Your task to perform on an android device: turn on the 24-hour format for clock Image 0: 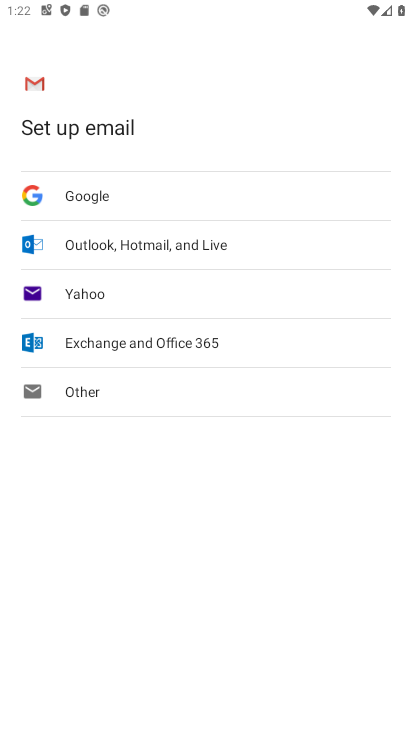
Step 0: press home button
Your task to perform on an android device: turn on the 24-hour format for clock Image 1: 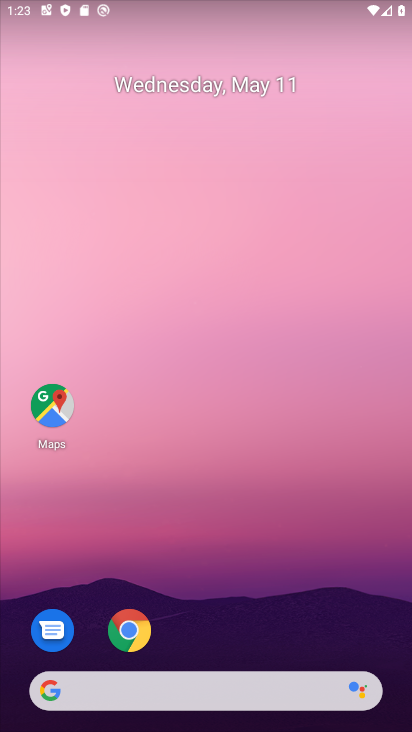
Step 1: drag from (230, 433) to (233, 58)
Your task to perform on an android device: turn on the 24-hour format for clock Image 2: 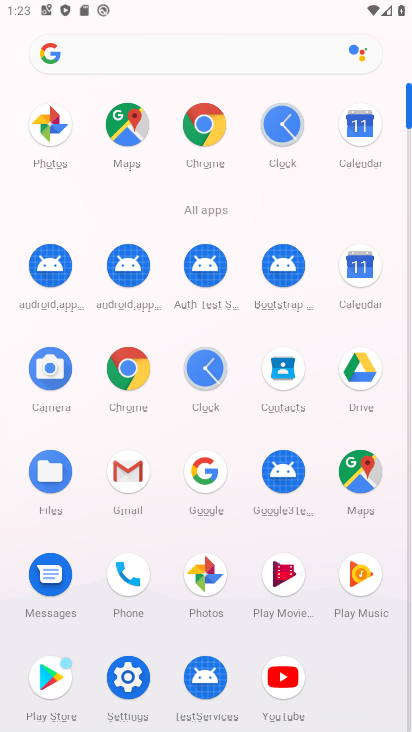
Step 2: click (160, 371)
Your task to perform on an android device: turn on the 24-hour format for clock Image 3: 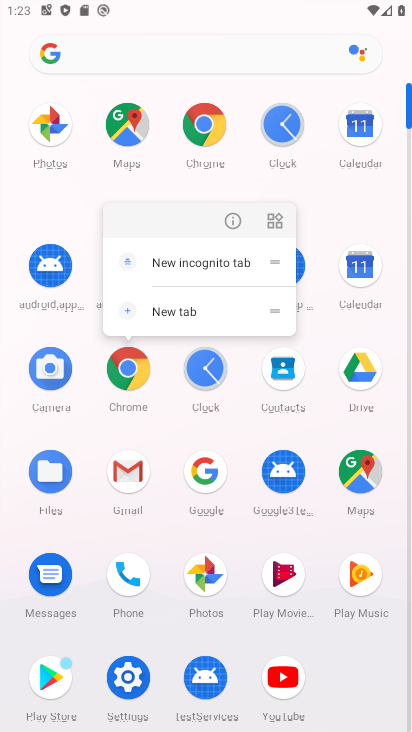
Step 3: click (202, 377)
Your task to perform on an android device: turn on the 24-hour format for clock Image 4: 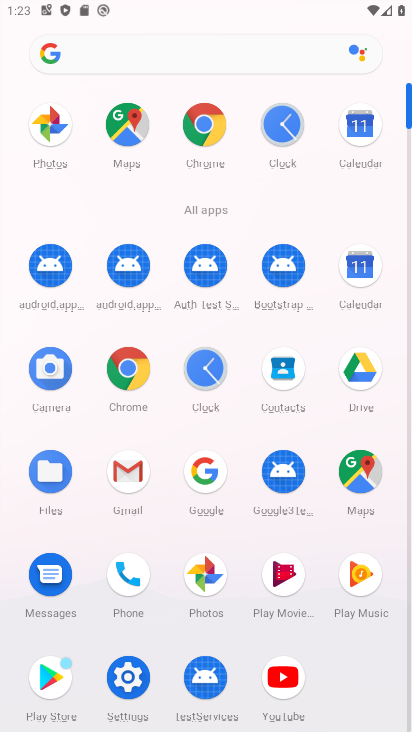
Step 4: click (279, 133)
Your task to perform on an android device: turn on the 24-hour format for clock Image 5: 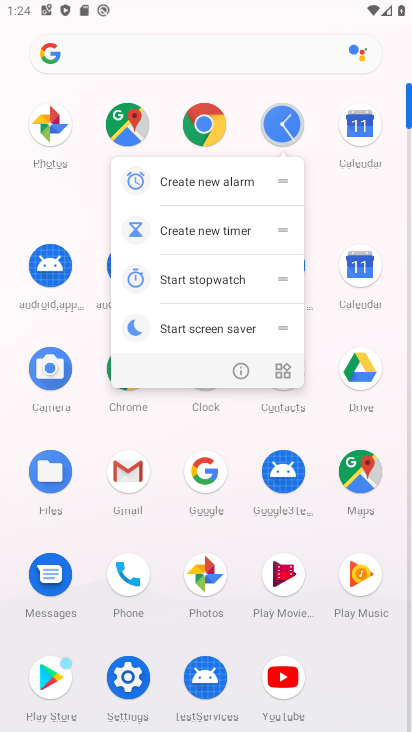
Step 5: click (274, 135)
Your task to perform on an android device: turn on the 24-hour format for clock Image 6: 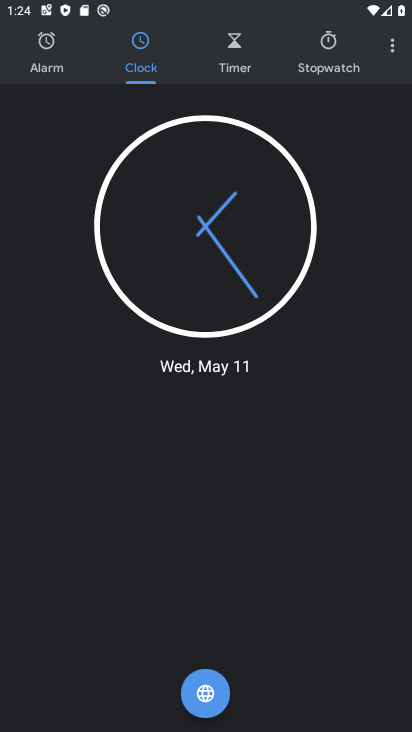
Step 6: click (389, 52)
Your task to perform on an android device: turn on the 24-hour format for clock Image 7: 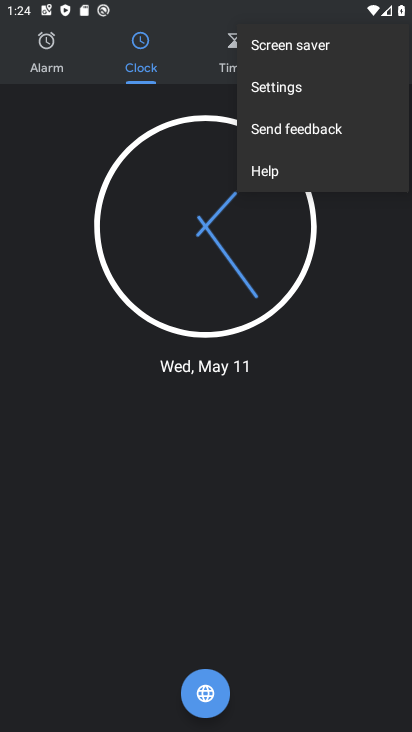
Step 7: click (291, 96)
Your task to perform on an android device: turn on the 24-hour format for clock Image 8: 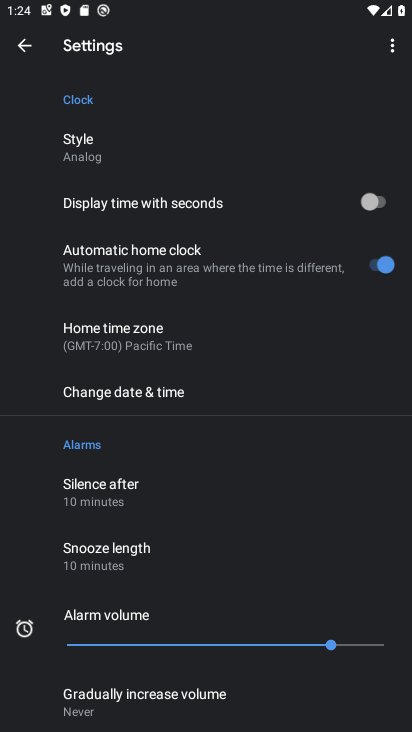
Step 8: click (123, 395)
Your task to perform on an android device: turn on the 24-hour format for clock Image 9: 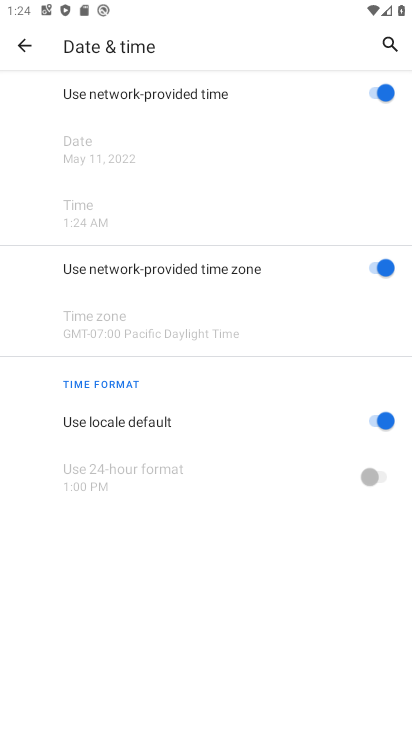
Step 9: click (371, 485)
Your task to perform on an android device: turn on the 24-hour format for clock Image 10: 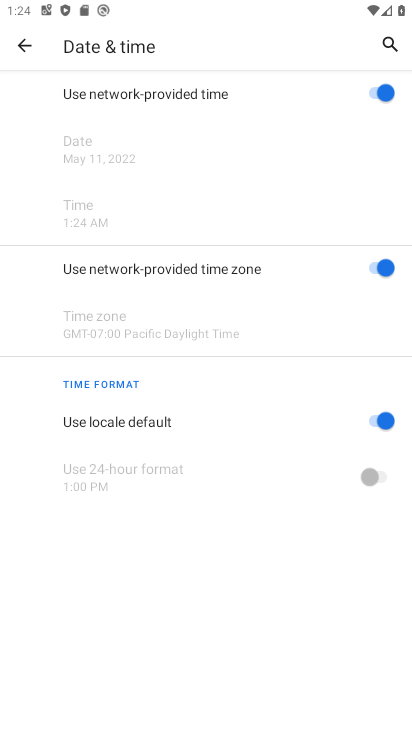
Step 10: click (386, 432)
Your task to perform on an android device: turn on the 24-hour format for clock Image 11: 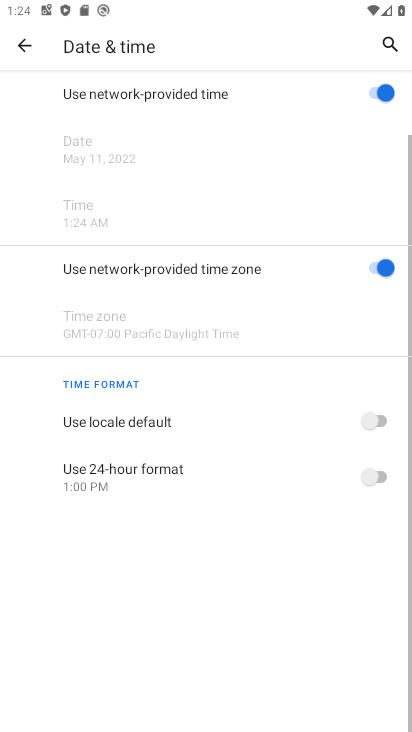
Step 11: click (377, 478)
Your task to perform on an android device: turn on the 24-hour format for clock Image 12: 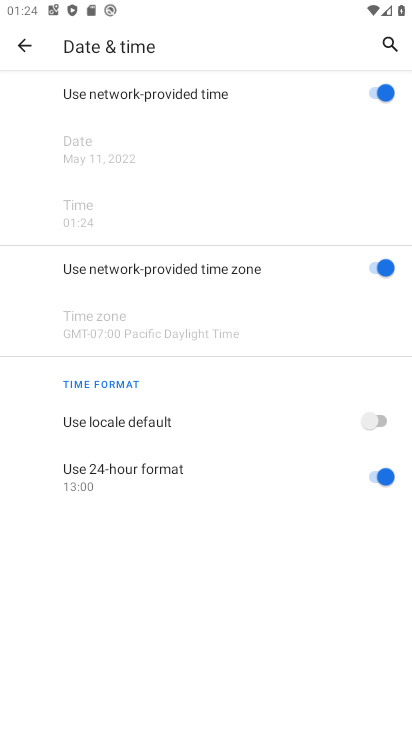
Step 12: task complete